Your task to perform on an android device: Go to wifi settings Image 0: 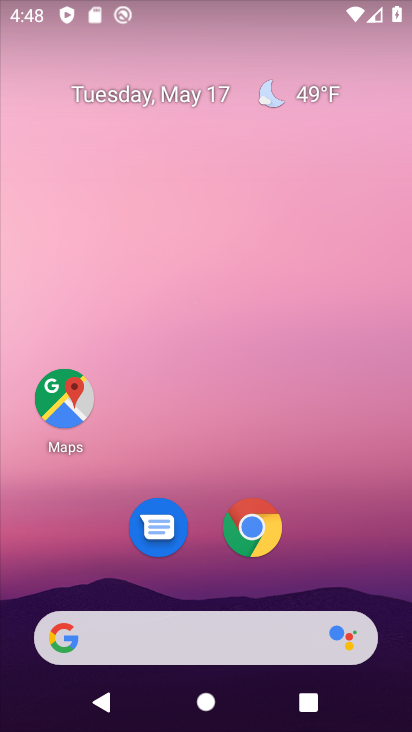
Step 0: drag from (320, 536) to (250, 18)
Your task to perform on an android device: Go to wifi settings Image 1: 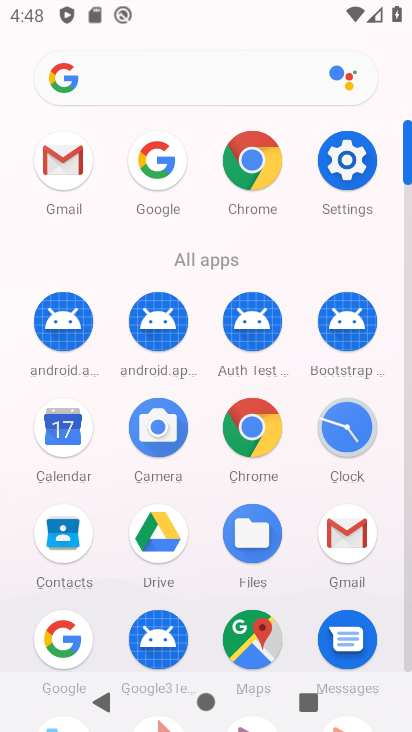
Step 1: drag from (25, 531) to (25, 181)
Your task to perform on an android device: Go to wifi settings Image 2: 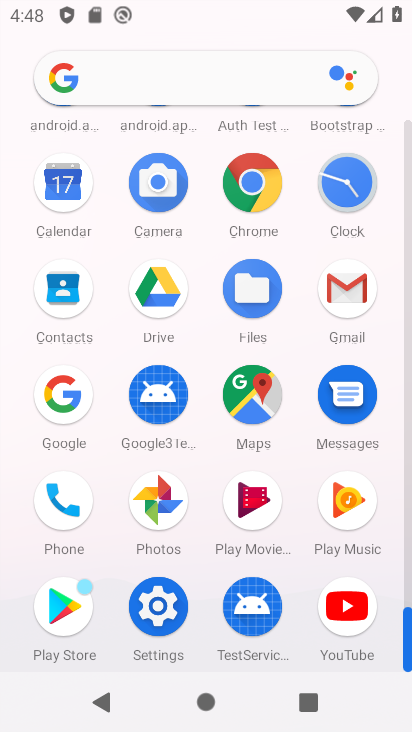
Step 2: click (154, 603)
Your task to perform on an android device: Go to wifi settings Image 3: 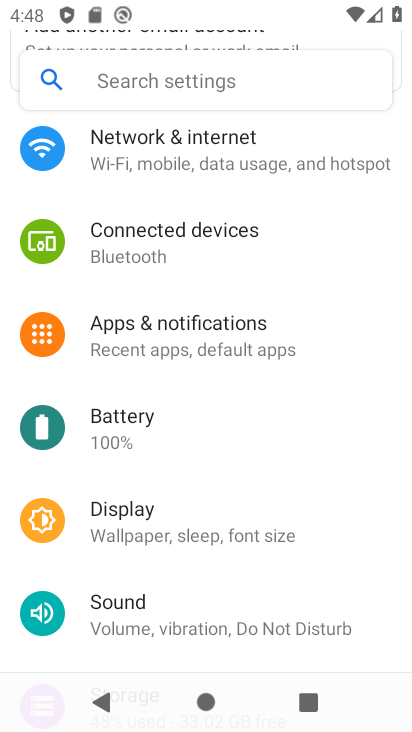
Step 3: click (171, 153)
Your task to perform on an android device: Go to wifi settings Image 4: 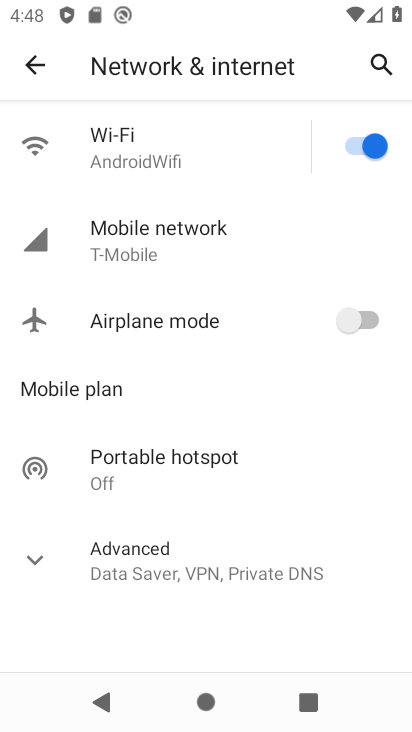
Step 4: click (170, 152)
Your task to perform on an android device: Go to wifi settings Image 5: 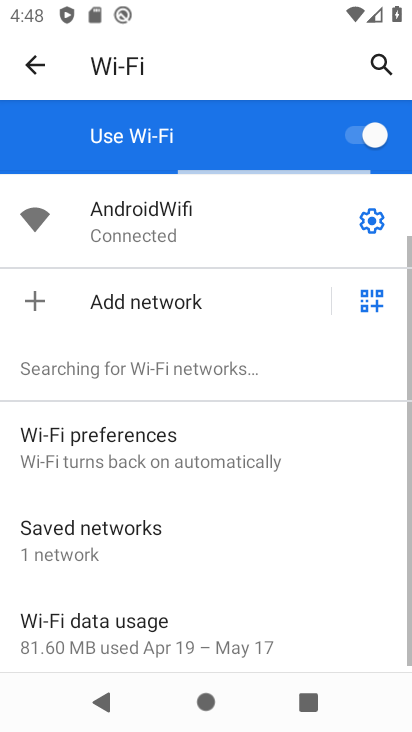
Step 5: task complete